Your task to perform on an android device: Open network settings Image 0: 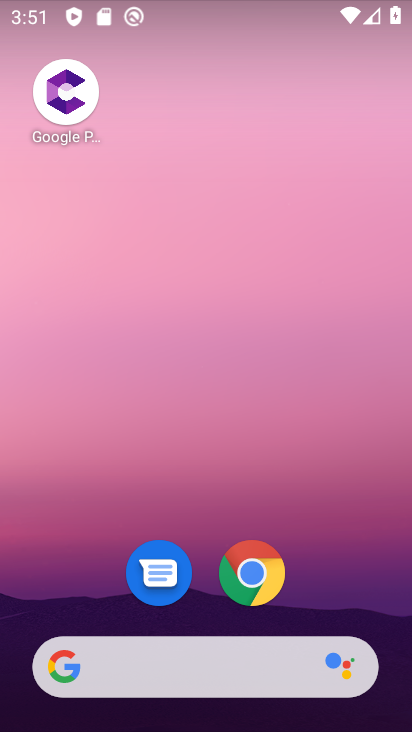
Step 0: drag from (193, 600) to (284, 125)
Your task to perform on an android device: Open network settings Image 1: 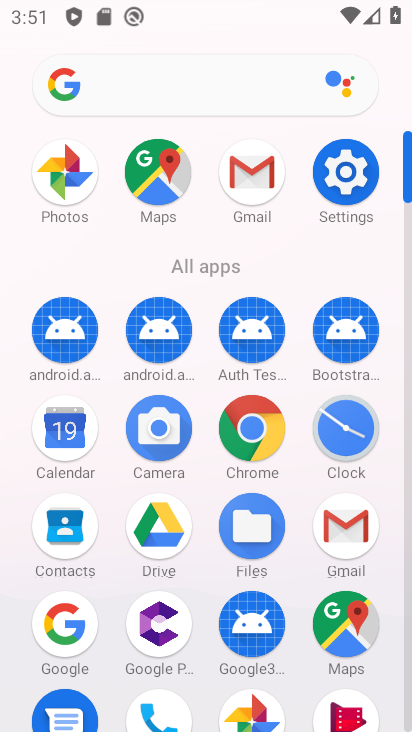
Step 1: click (354, 169)
Your task to perform on an android device: Open network settings Image 2: 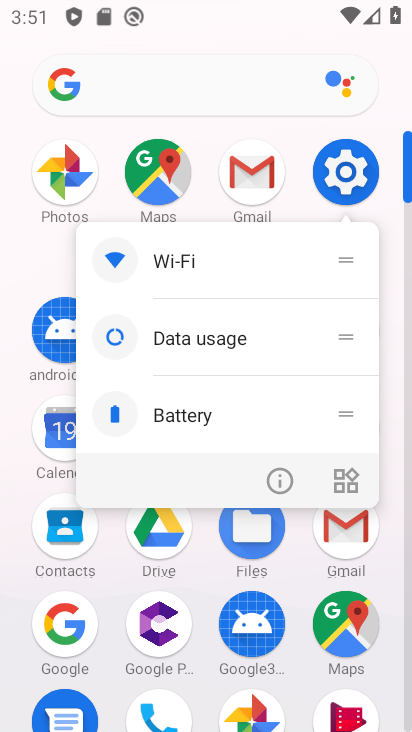
Step 2: click (348, 172)
Your task to perform on an android device: Open network settings Image 3: 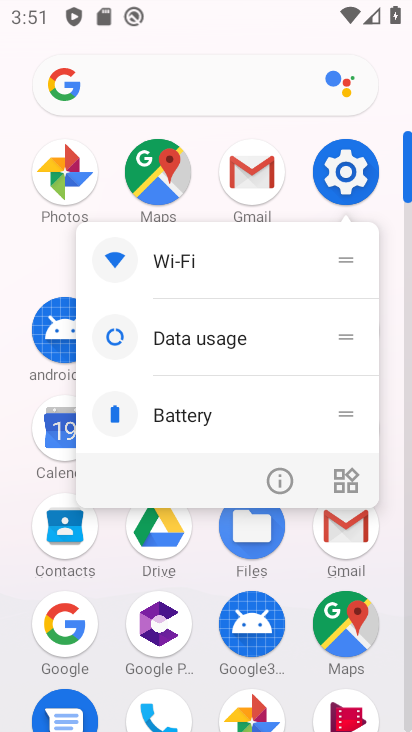
Step 3: click (348, 172)
Your task to perform on an android device: Open network settings Image 4: 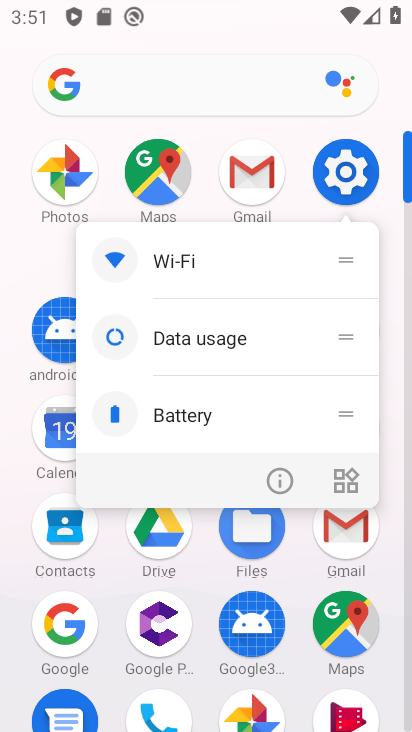
Step 4: click (336, 184)
Your task to perform on an android device: Open network settings Image 5: 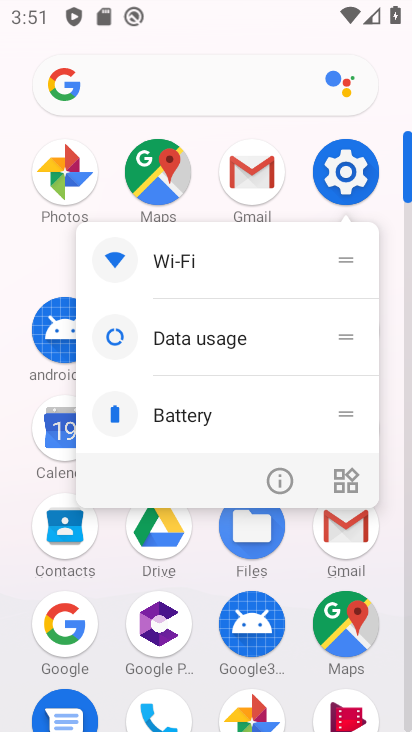
Step 5: click (350, 161)
Your task to perform on an android device: Open network settings Image 6: 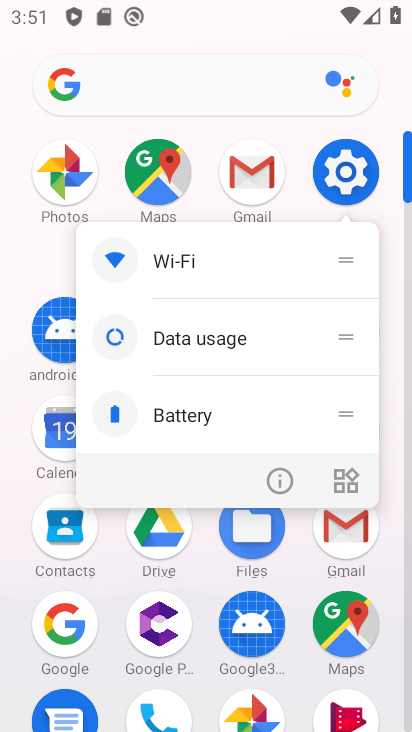
Step 6: click (344, 170)
Your task to perform on an android device: Open network settings Image 7: 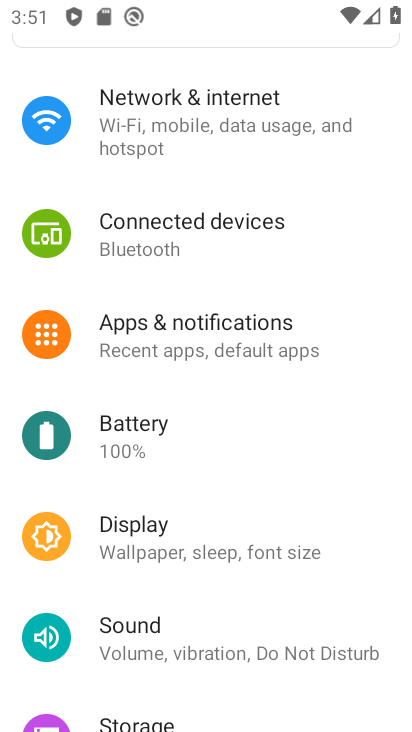
Step 7: click (185, 135)
Your task to perform on an android device: Open network settings Image 8: 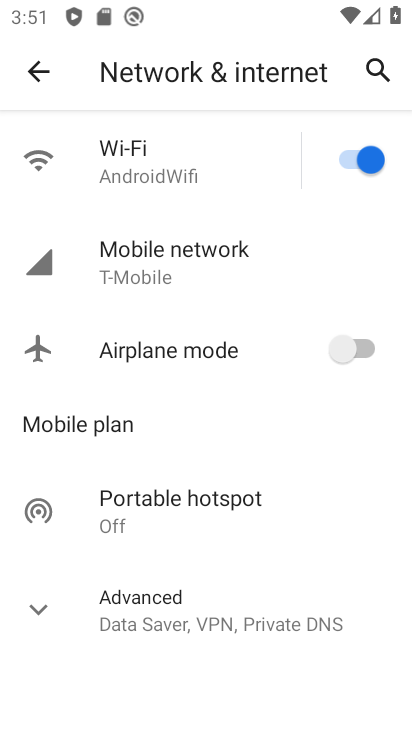
Step 8: click (217, 264)
Your task to perform on an android device: Open network settings Image 9: 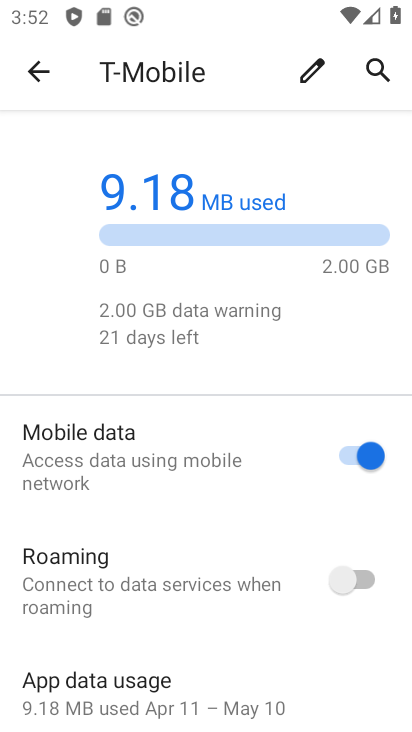
Step 9: task complete